Your task to perform on an android device: search for starred emails in the gmail app Image 0: 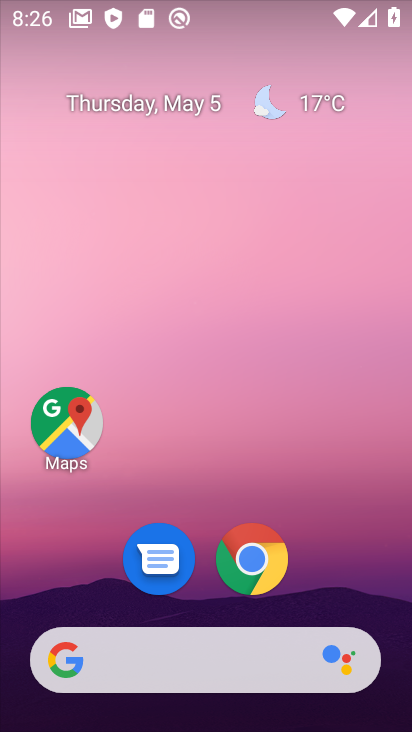
Step 0: drag from (182, 546) to (258, 51)
Your task to perform on an android device: search for starred emails in the gmail app Image 1: 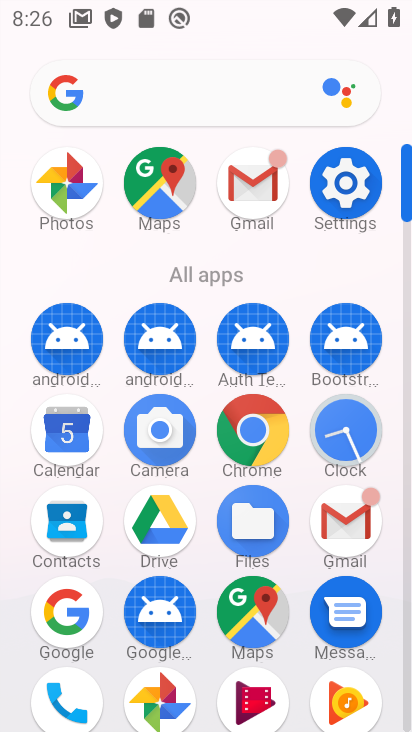
Step 1: click (257, 172)
Your task to perform on an android device: search for starred emails in the gmail app Image 2: 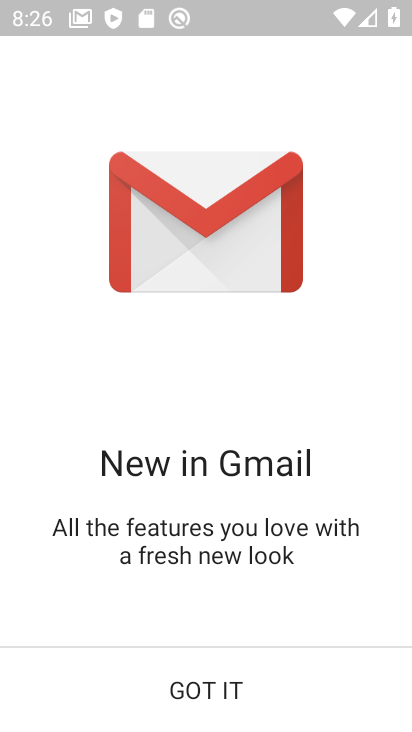
Step 2: click (209, 676)
Your task to perform on an android device: search for starred emails in the gmail app Image 3: 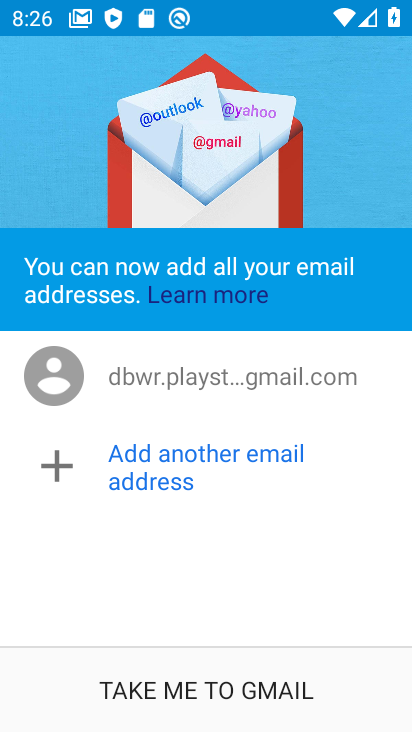
Step 3: click (199, 678)
Your task to perform on an android device: search for starred emails in the gmail app Image 4: 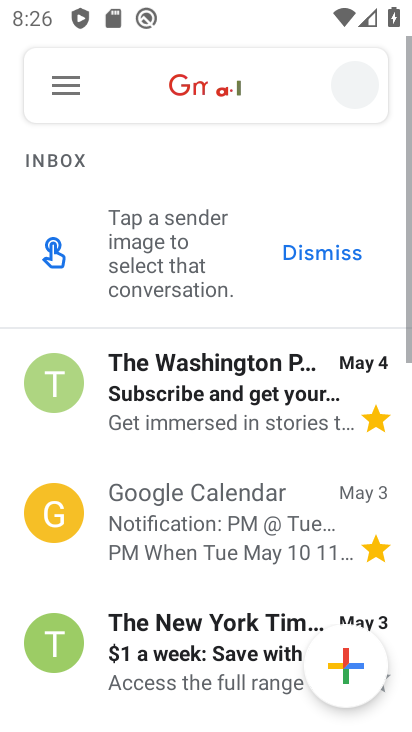
Step 4: click (60, 86)
Your task to perform on an android device: search for starred emails in the gmail app Image 5: 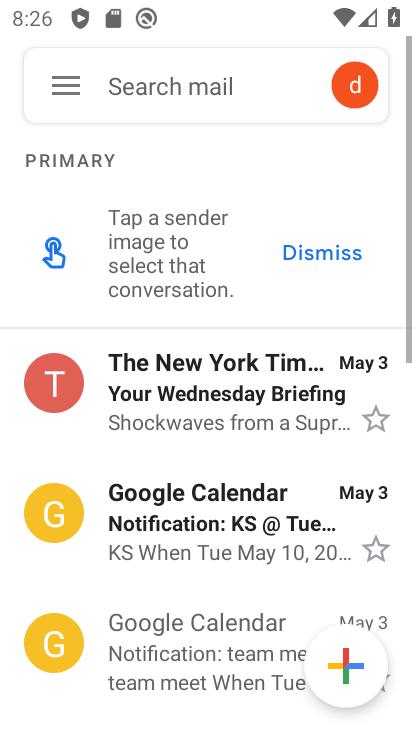
Step 5: click (64, 76)
Your task to perform on an android device: search for starred emails in the gmail app Image 6: 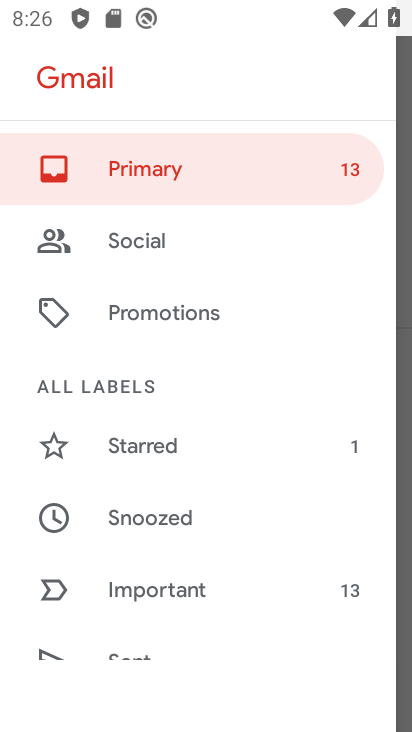
Step 6: click (167, 448)
Your task to perform on an android device: search for starred emails in the gmail app Image 7: 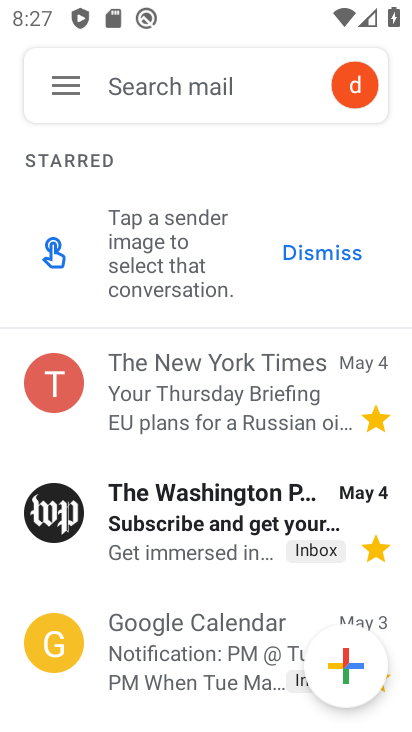
Step 7: drag from (200, 660) to (146, 730)
Your task to perform on an android device: search for starred emails in the gmail app Image 8: 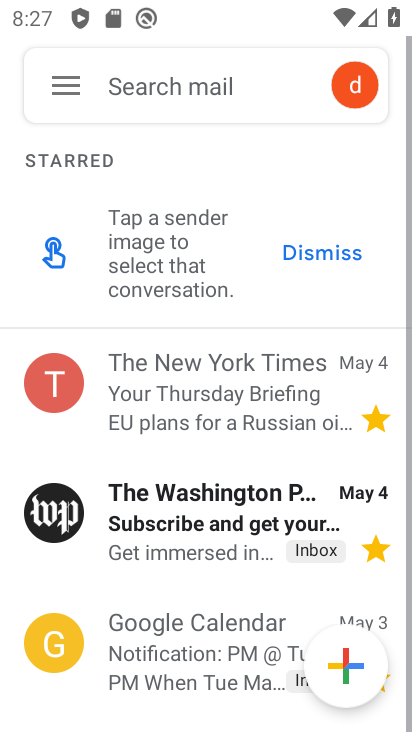
Step 8: click (68, 77)
Your task to perform on an android device: search for starred emails in the gmail app Image 9: 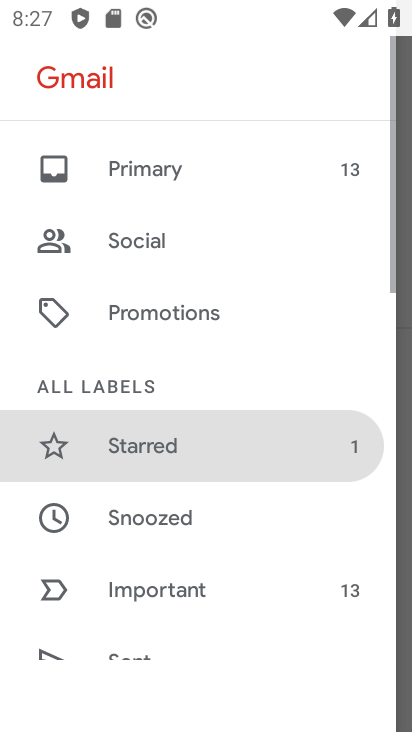
Step 9: click (154, 448)
Your task to perform on an android device: search for starred emails in the gmail app Image 10: 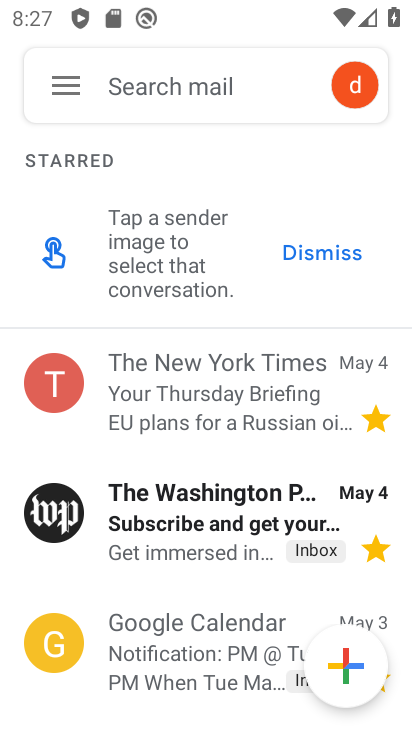
Step 10: task complete